Your task to perform on an android device: empty trash in the gmail app Image 0: 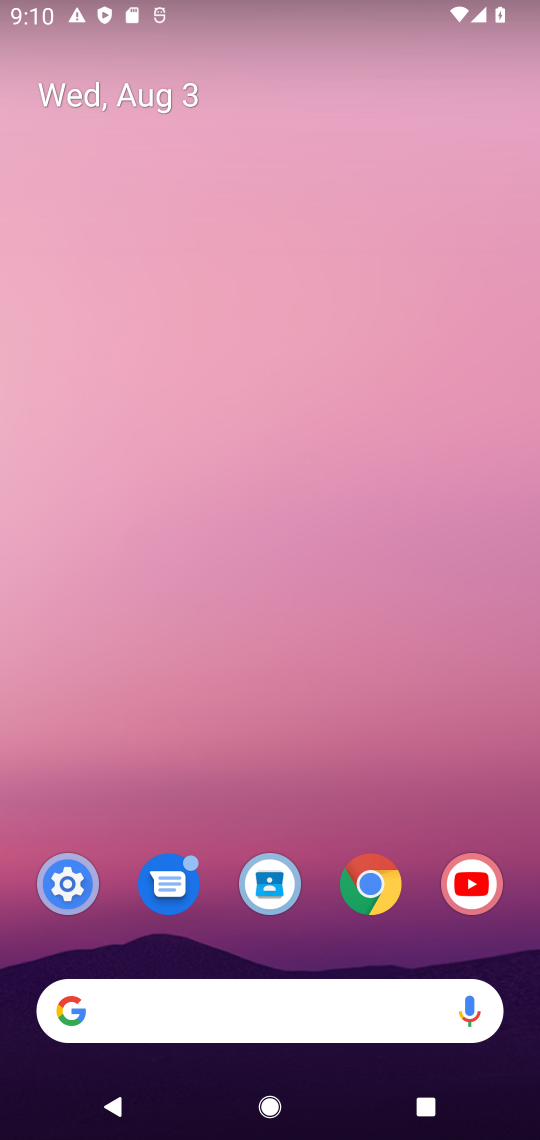
Step 0: press home button
Your task to perform on an android device: empty trash in the gmail app Image 1: 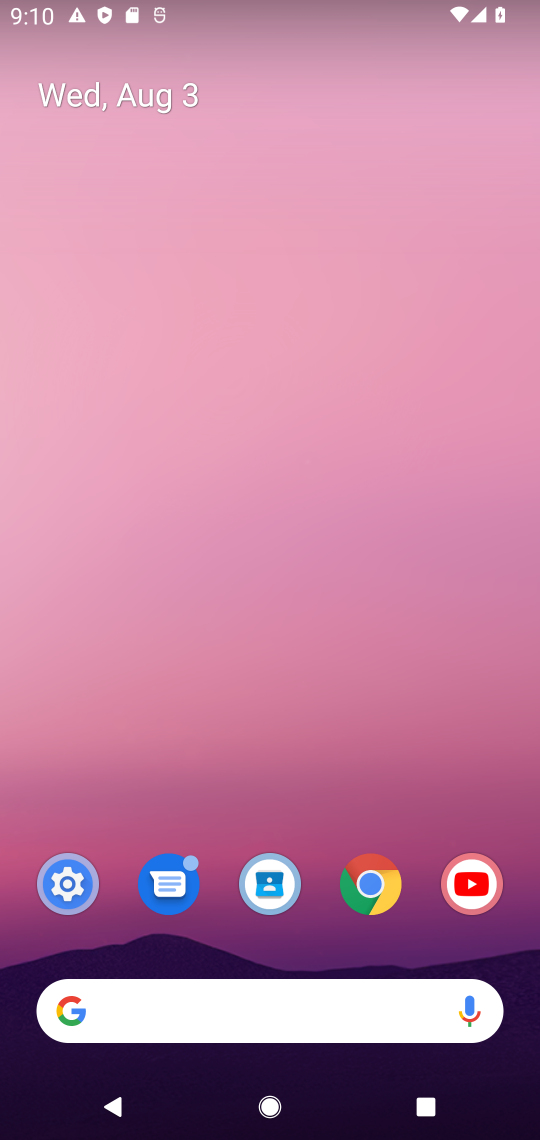
Step 1: drag from (235, 1017) to (295, 487)
Your task to perform on an android device: empty trash in the gmail app Image 2: 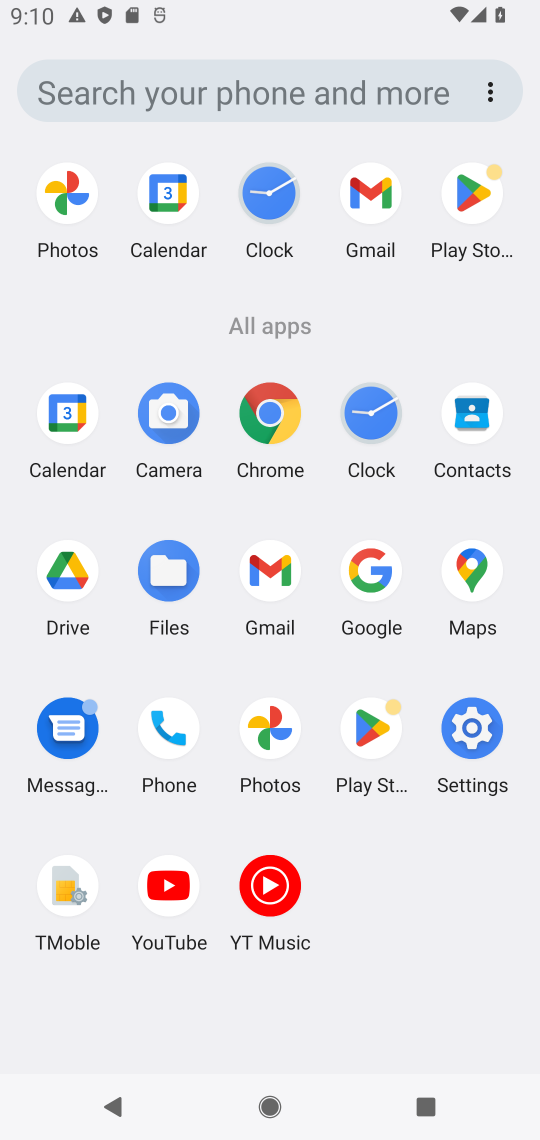
Step 2: click (289, 592)
Your task to perform on an android device: empty trash in the gmail app Image 3: 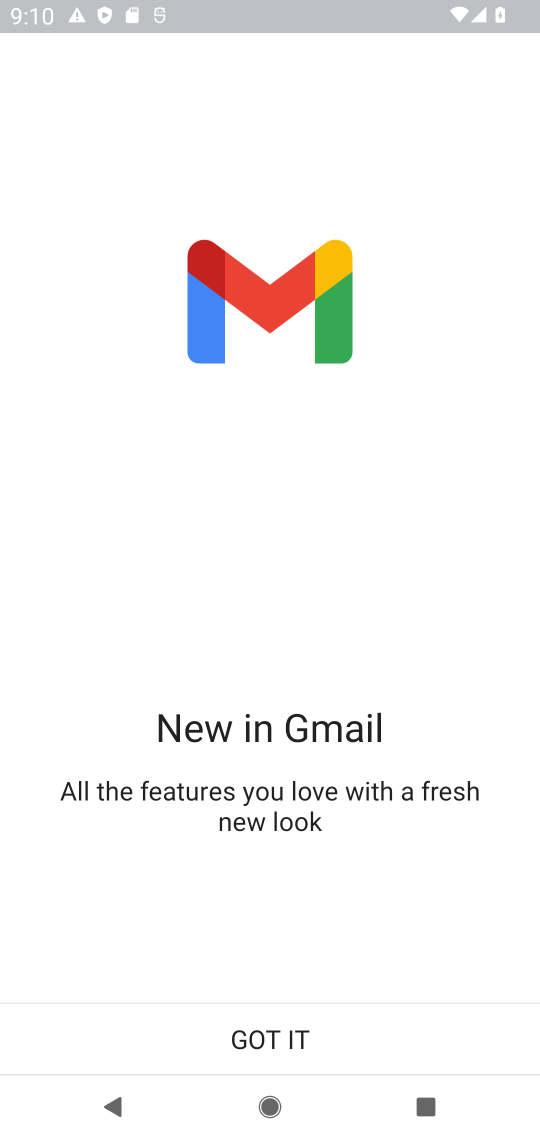
Step 3: click (189, 1040)
Your task to perform on an android device: empty trash in the gmail app Image 4: 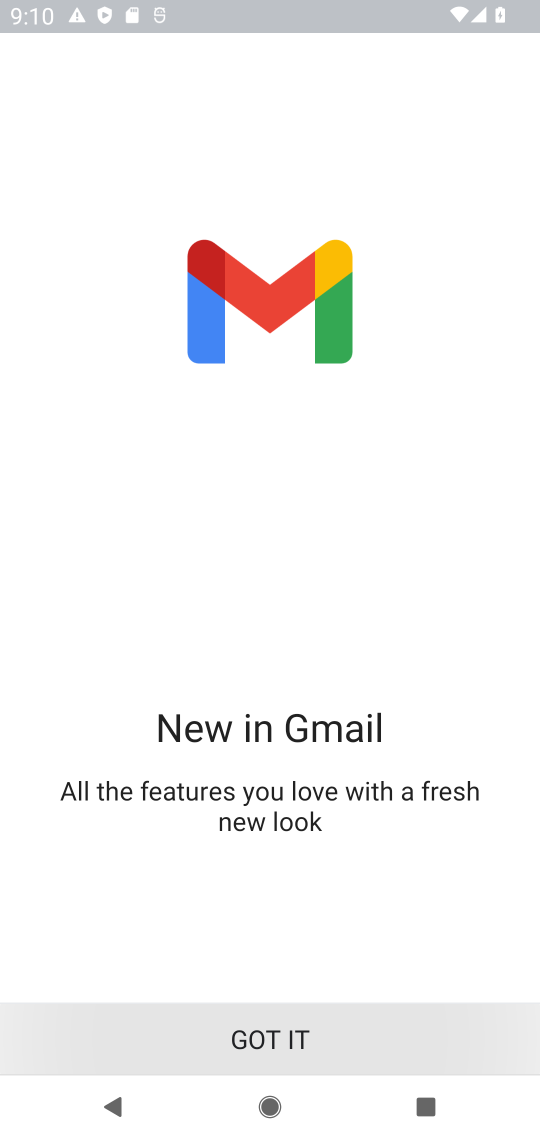
Step 4: click (189, 1040)
Your task to perform on an android device: empty trash in the gmail app Image 5: 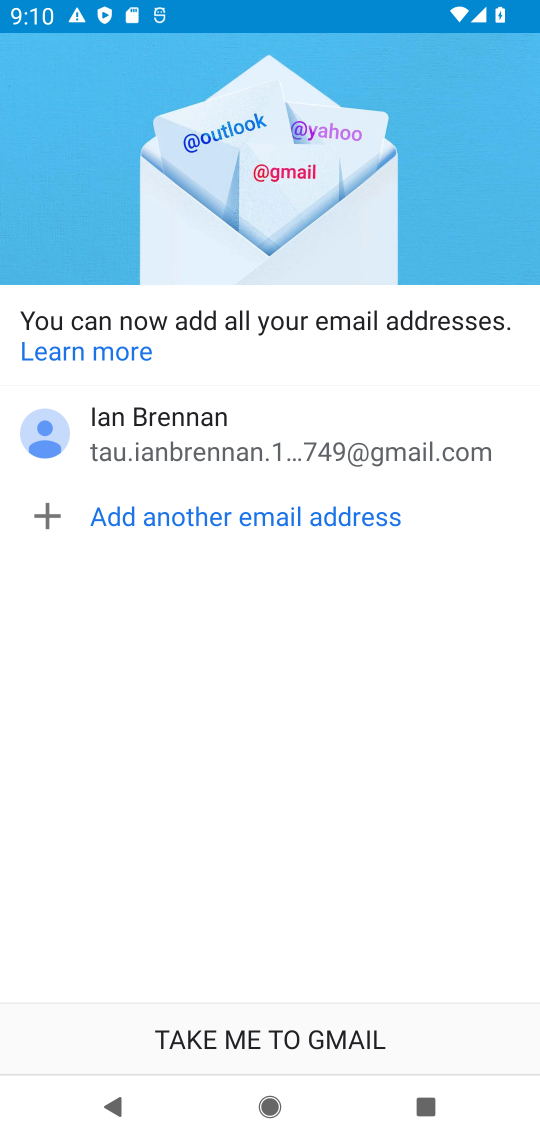
Step 5: click (189, 1040)
Your task to perform on an android device: empty trash in the gmail app Image 6: 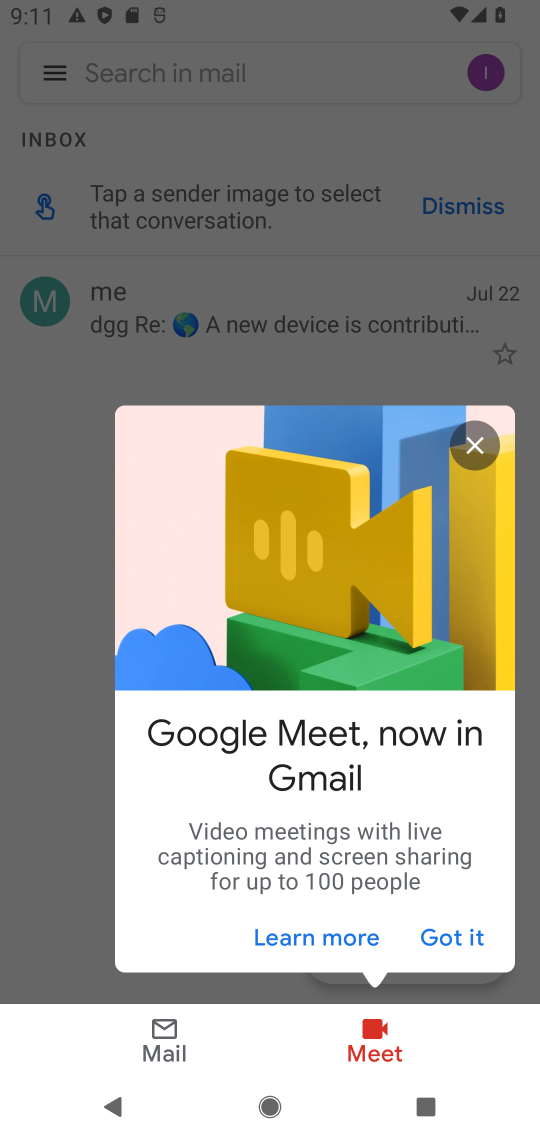
Step 6: click (480, 441)
Your task to perform on an android device: empty trash in the gmail app Image 7: 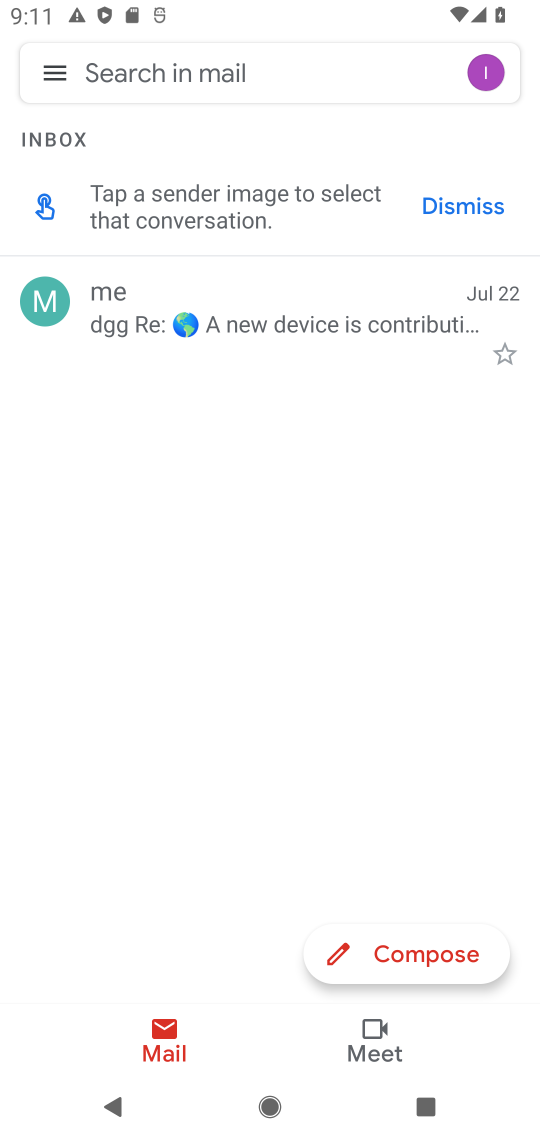
Step 7: click (486, 83)
Your task to perform on an android device: empty trash in the gmail app Image 8: 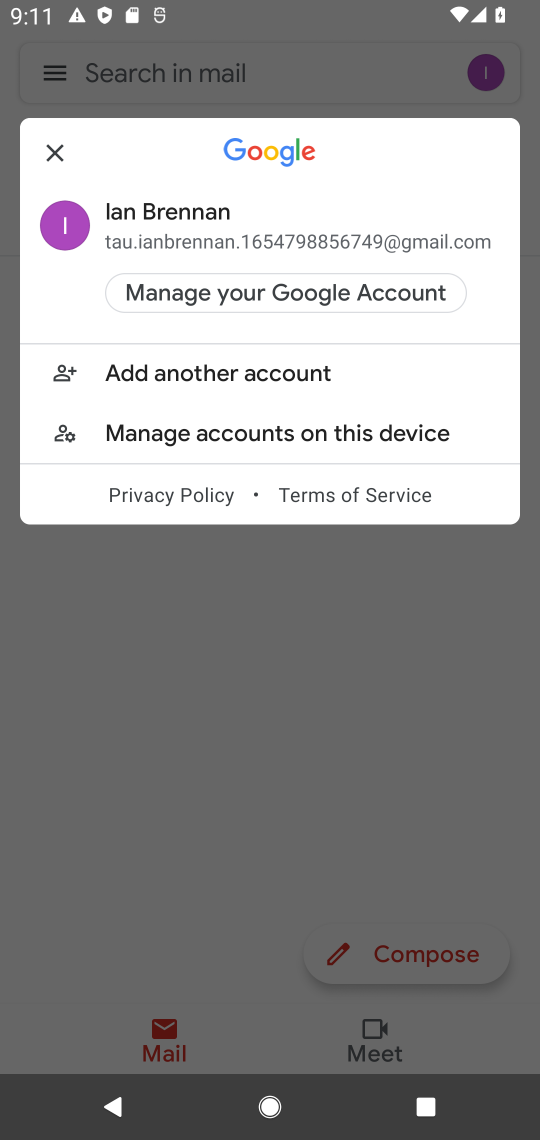
Step 8: click (370, 776)
Your task to perform on an android device: empty trash in the gmail app Image 9: 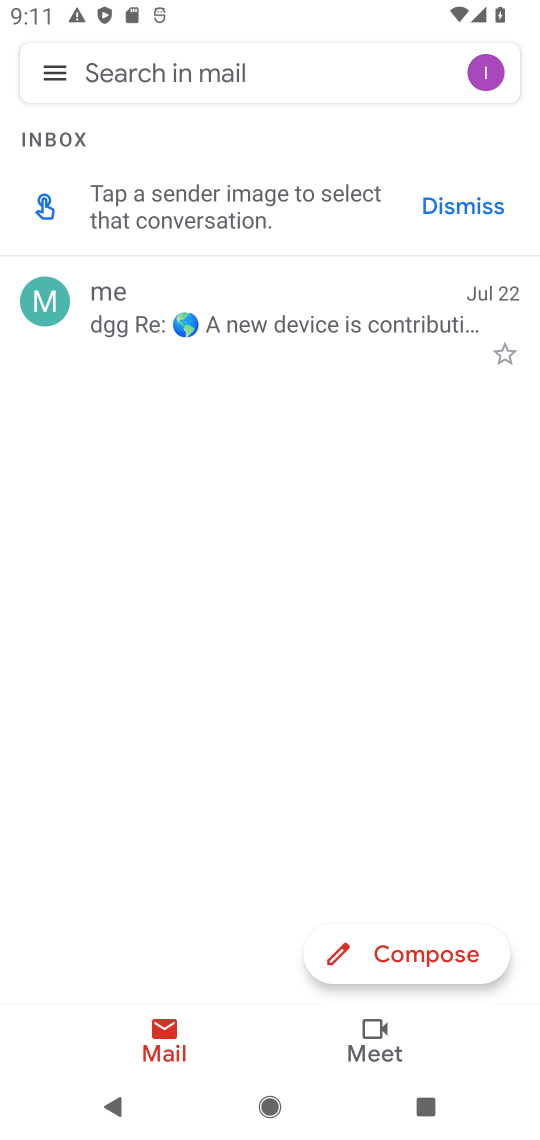
Step 9: click (63, 75)
Your task to perform on an android device: empty trash in the gmail app Image 10: 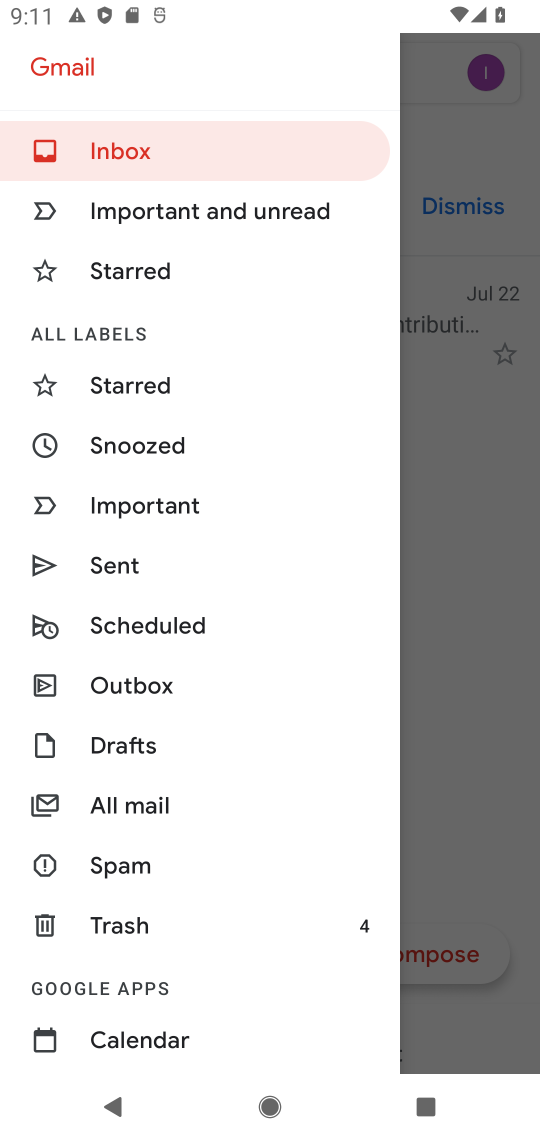
Step 10: click (136, 924)
Your task to perform on an android device: empty trash in the gmail app Image 11: 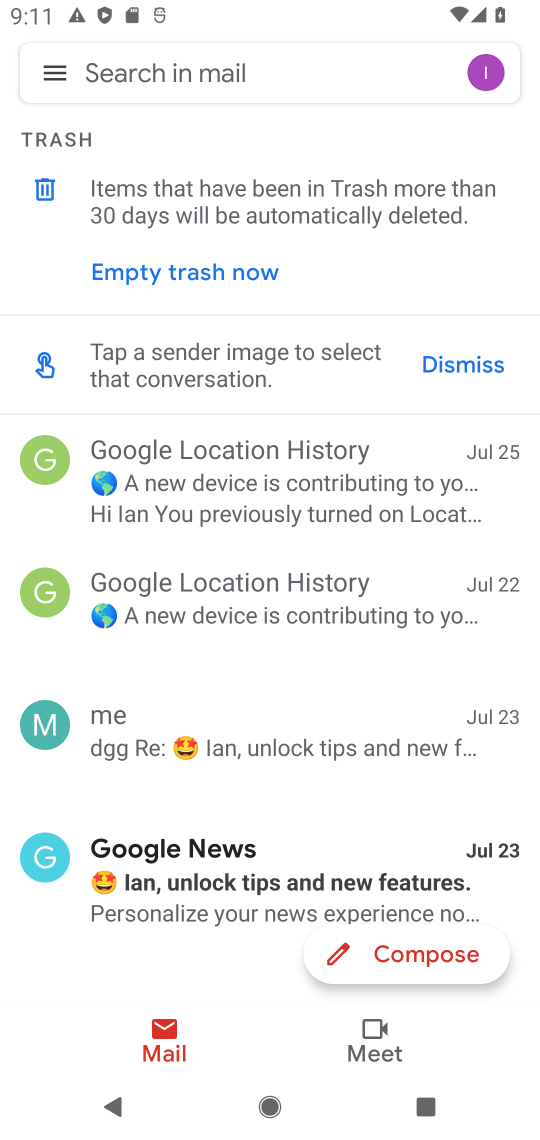
Step 11: click (152, 471)
Your task to perform on an android device: empty trash in the gmail app Image 12: 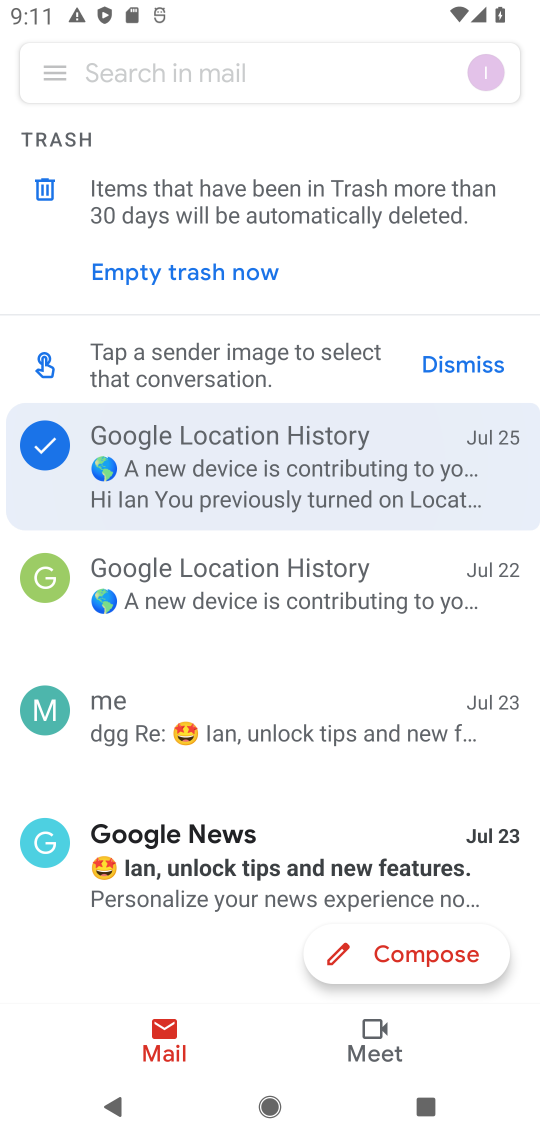
Step 12: click (152, 471)
Your task to perform on an android device: empty trash in the gmail app Image 13: 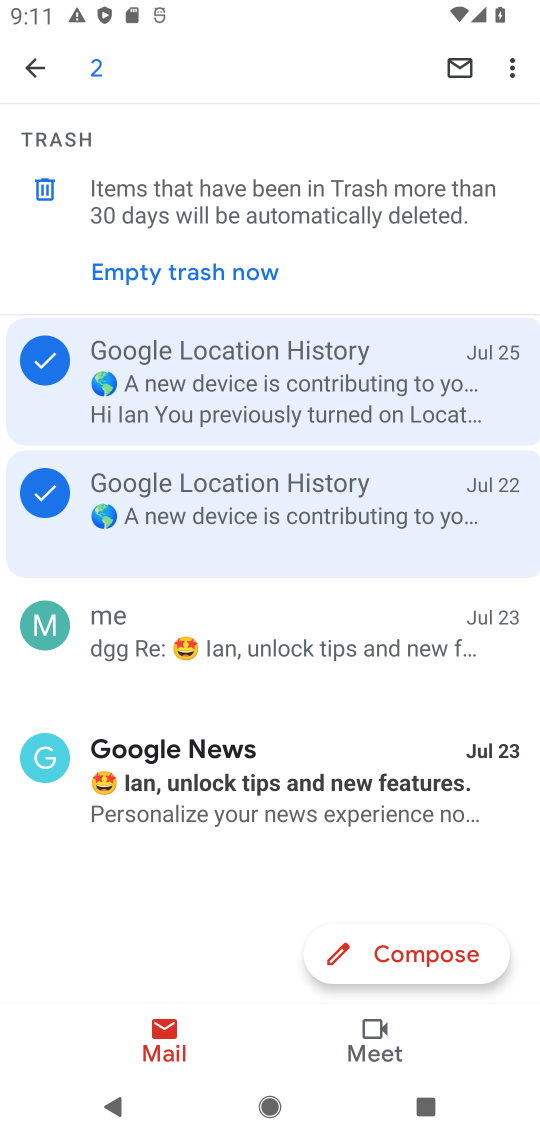
Step 13: click (27, 491)
Your task to perform on an android device: empty trash in the gmail app Image 14: 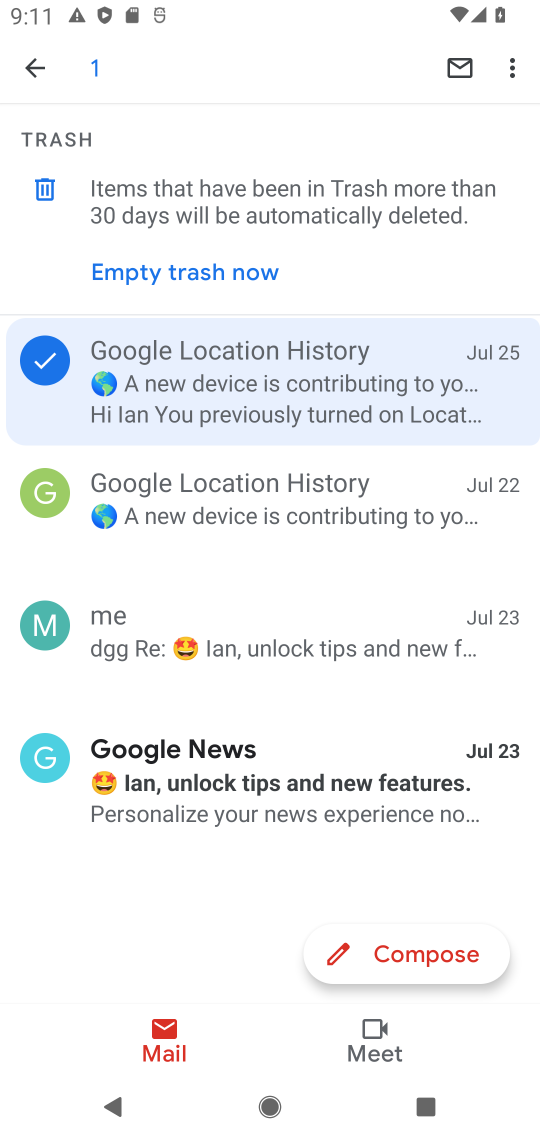
Step 14: click (27, 491)
Your task to perform on an android device: empty trash in the gmail app Image 15: 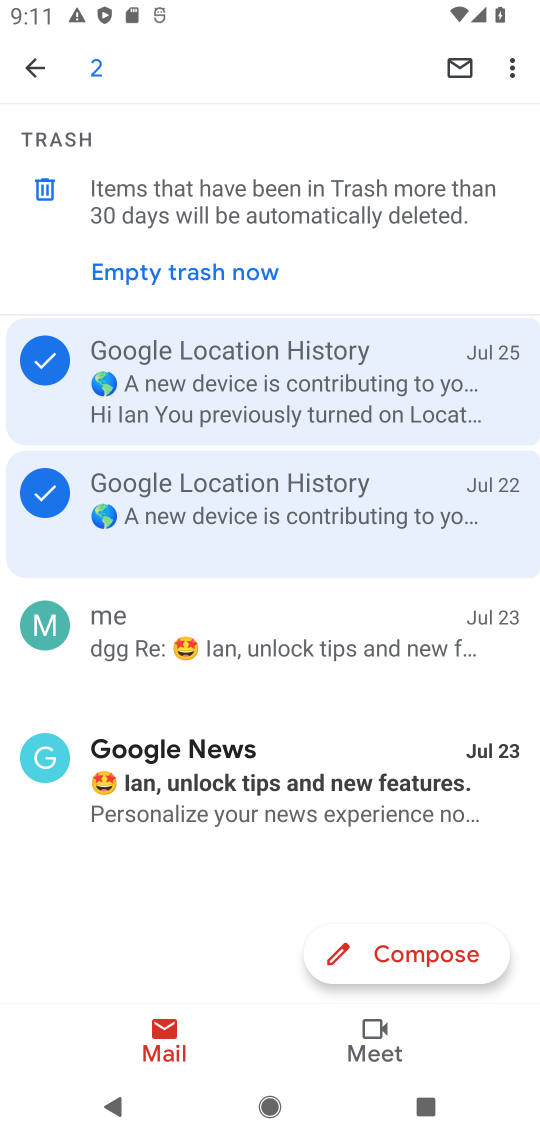
Step 15: click (51, 619)
Your task to perform on an android device: empty trash in the gmail app Image 16: 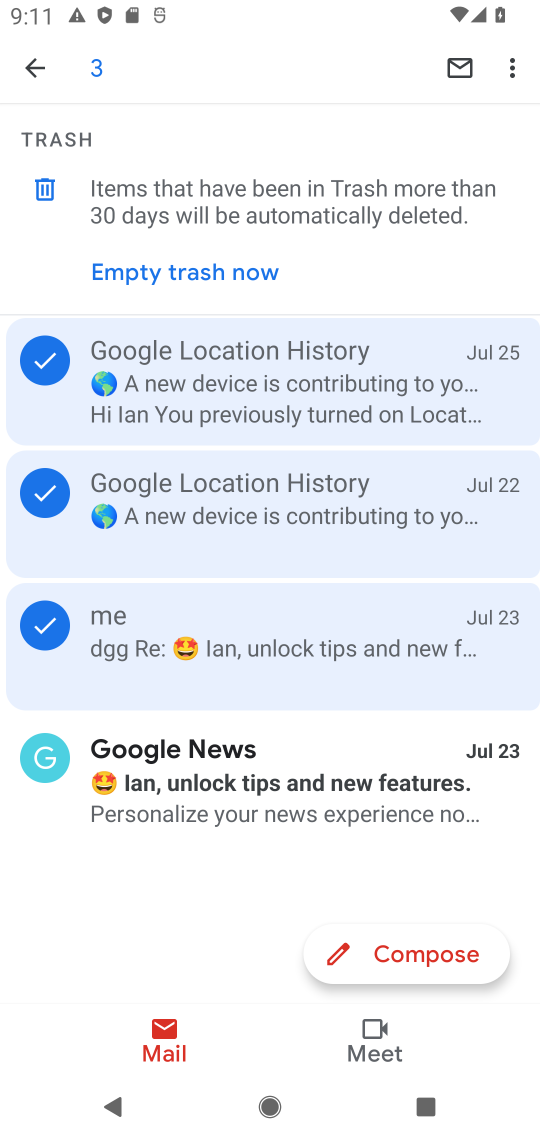
Step 16: click (58, 760)
Your task to perform on an android device: empty trash in the gmail app Image 17: 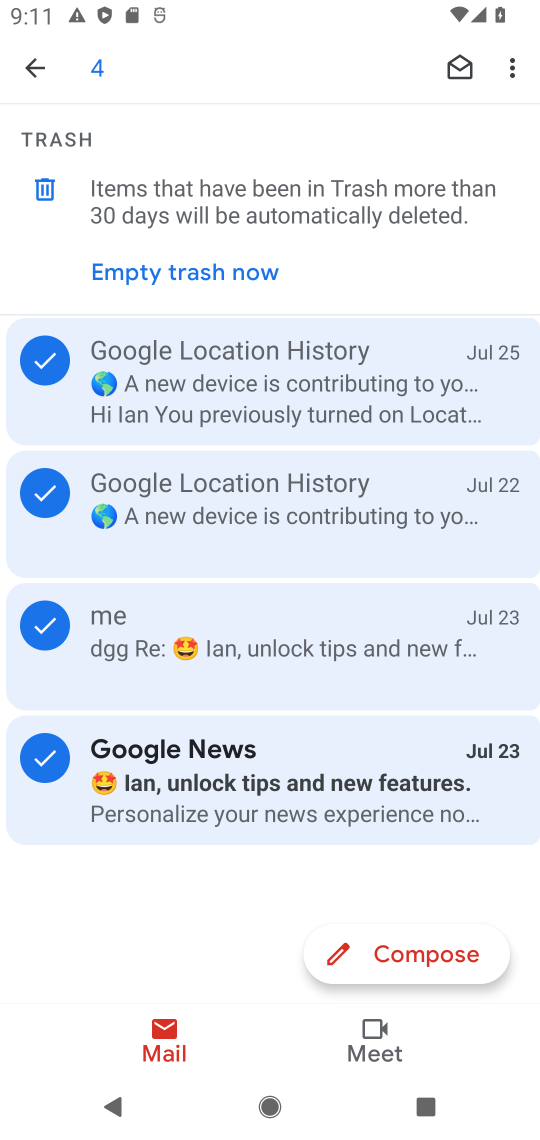
Step 17: click (48, 194)
Your task to perform on an android device: empty trash in the gmail app Image 18: 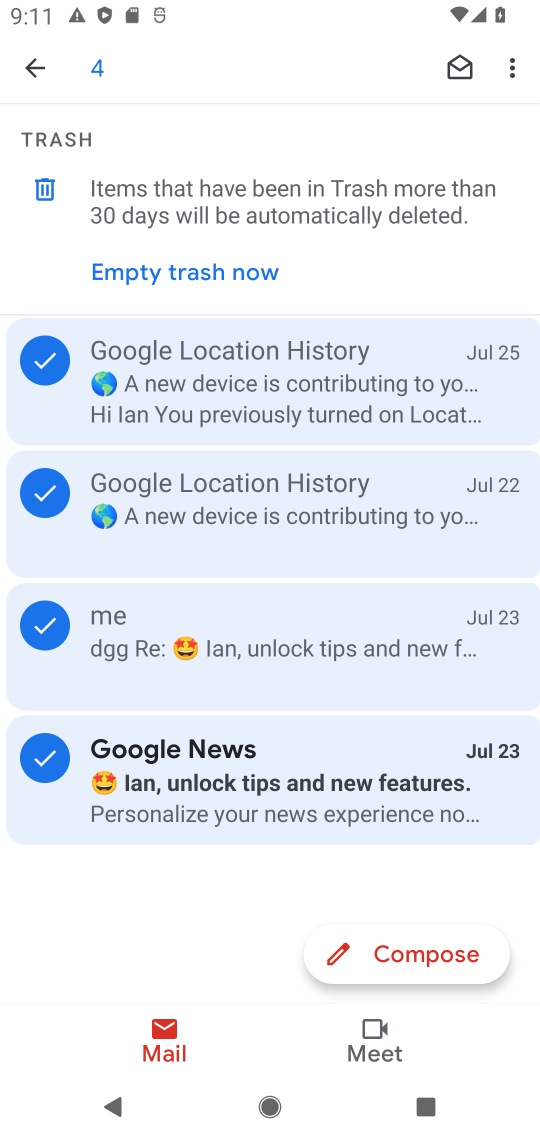
Step 18: click (194, 274)
Your task to perform on an android device: empty trash in the gmail app Image 19: 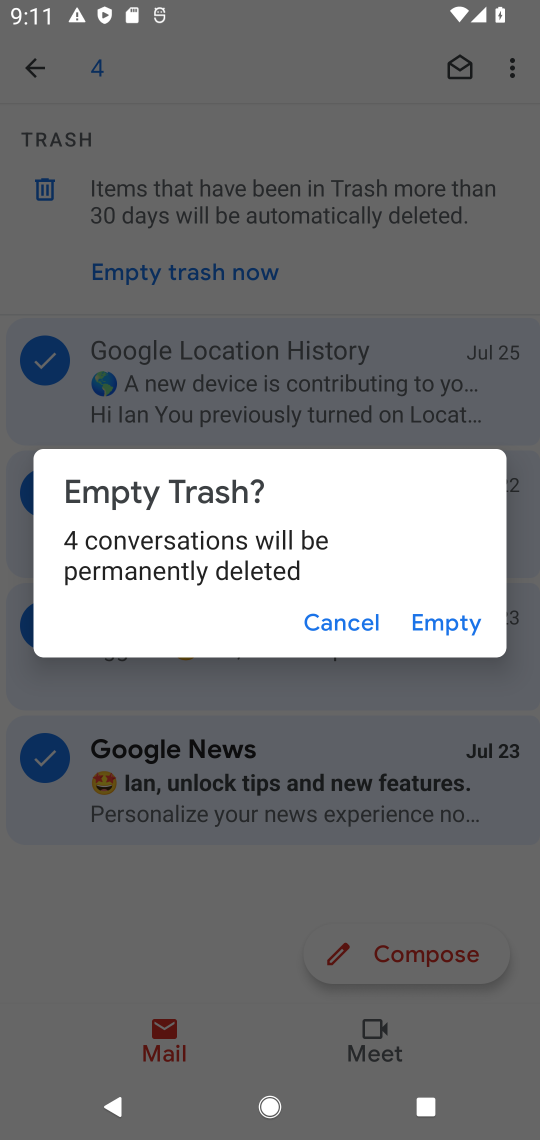
Step 19: click (423, 623)
Your task to perform on an android device: empty trash in the gmail app Image 20: 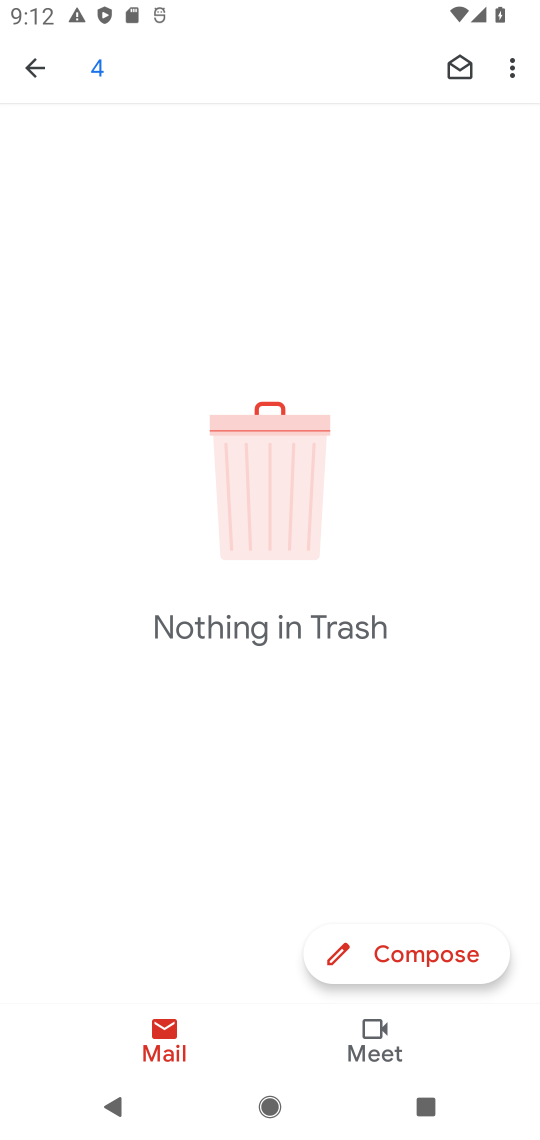
Step 20: task complete